Your task to perform on an android device: check data usage Image 0: 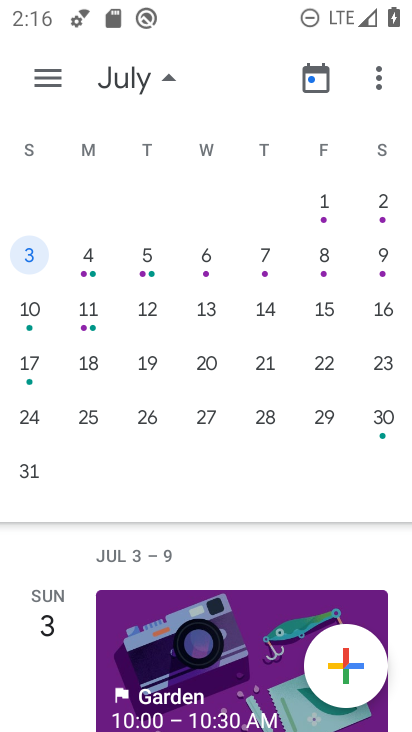
Step 0: press home button
Your task to perform on an android device: check data usage Image 1: 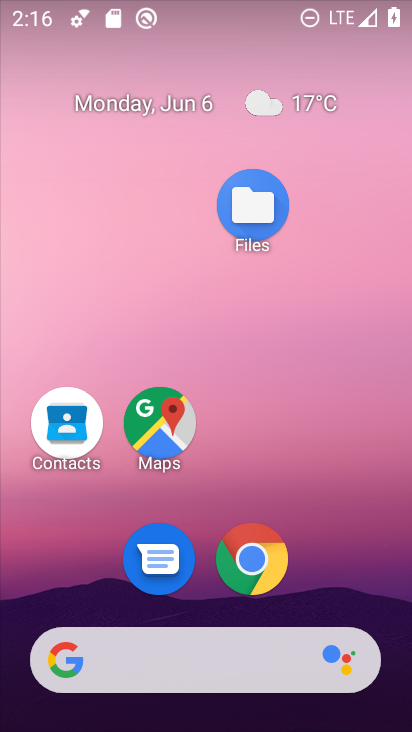
Step 1: drag from (187, 651) to (178, 159)
Your task to perform on an android device: check data usage Image 2: 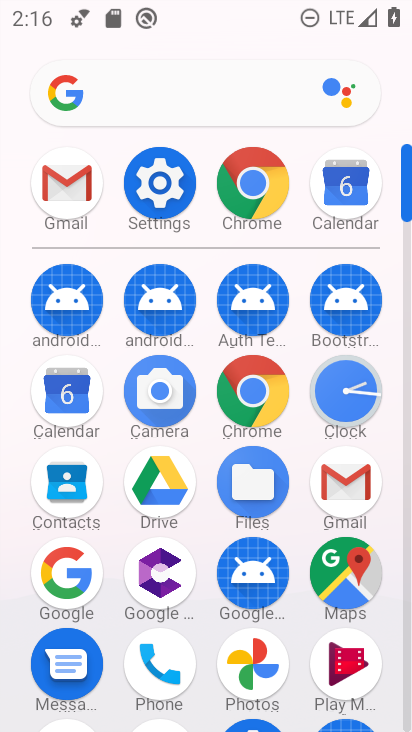
Step 2: click (176, 204)
Your task to perform on an android device: check data usage Image 3: 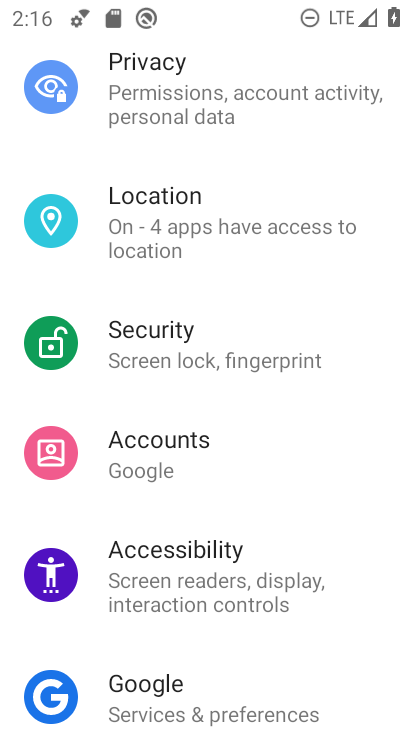
Step 3: drag from (215, 293) to (207, 585)
Your task to perform on an android device: check data usage Image 4: 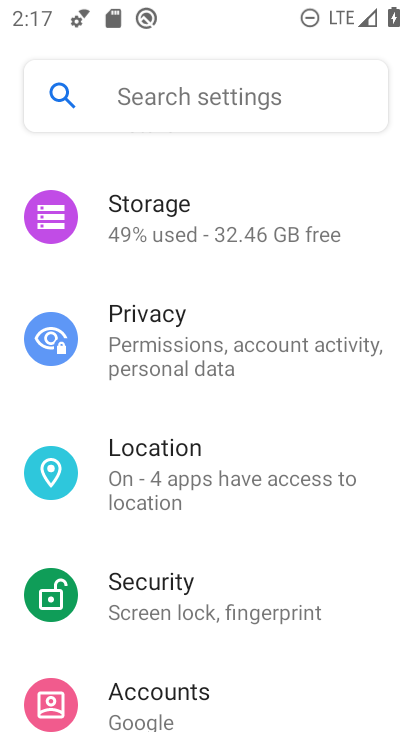
Step 4: drag from (217, 348) to (200, 607)
Your task to perform on an android device: check data usage Image 5: 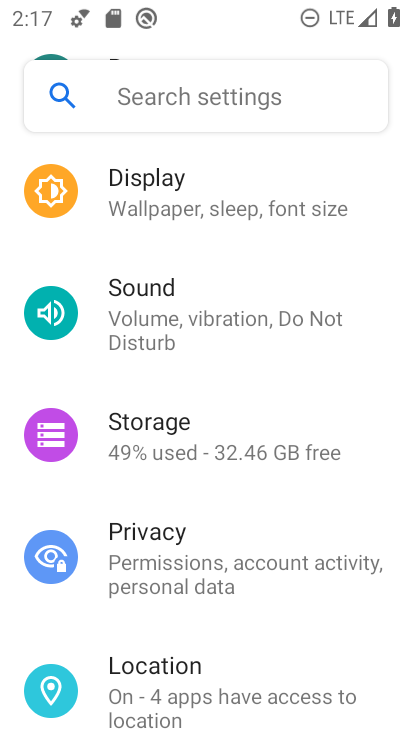
Step 5: drag from (214, 336) to (214, 659)
Your task to perform on an android device: check data usage Image 6: 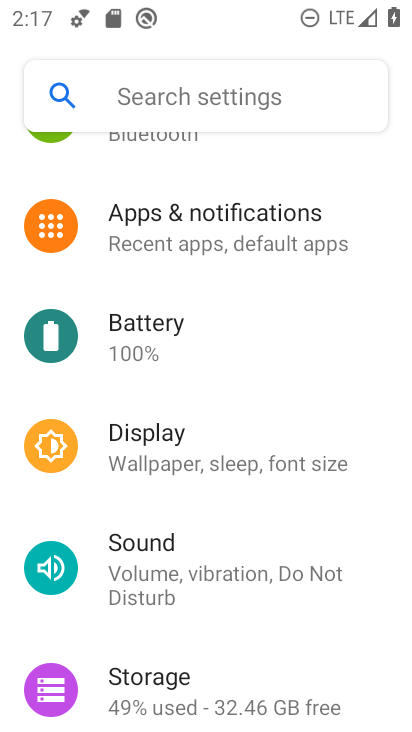
Step 6: drag from (215, 363) to (213, 678)
Your task to perform on an android device: check data usage Image 7: 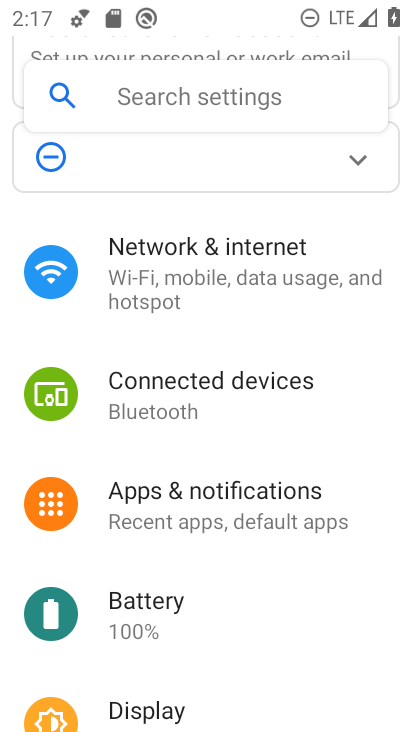
Step 7: drag from (219, 410) to (222, 653)
Your task to perform on an android device: check data usage Image 8: 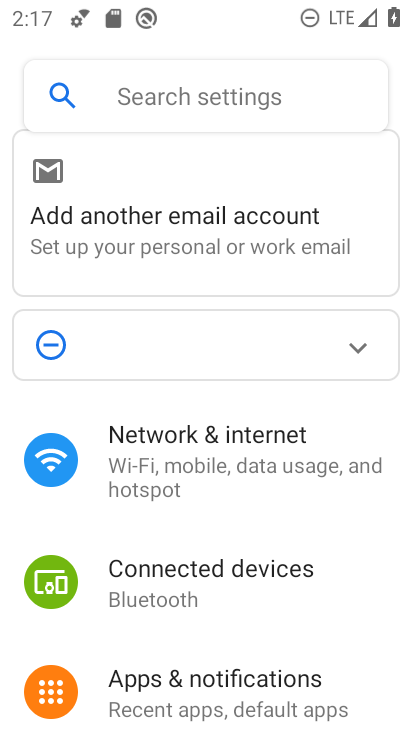
Step 8: click (226, 475)
Your task to perform on an android device: check data usage Image 9: 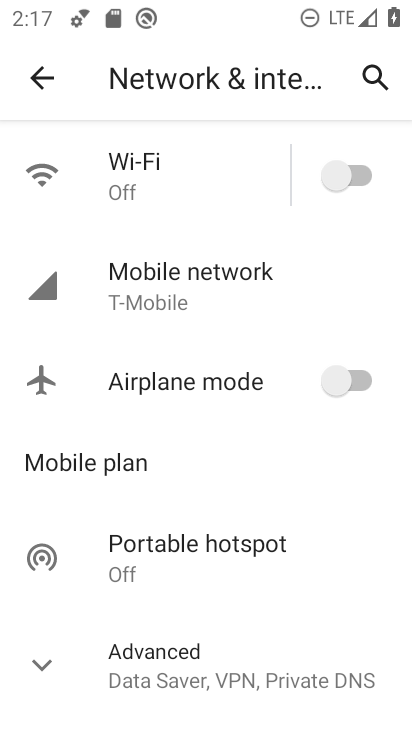
Step 9: click (207, 280)
Your task to perform on an android device: check data usage Image 10: 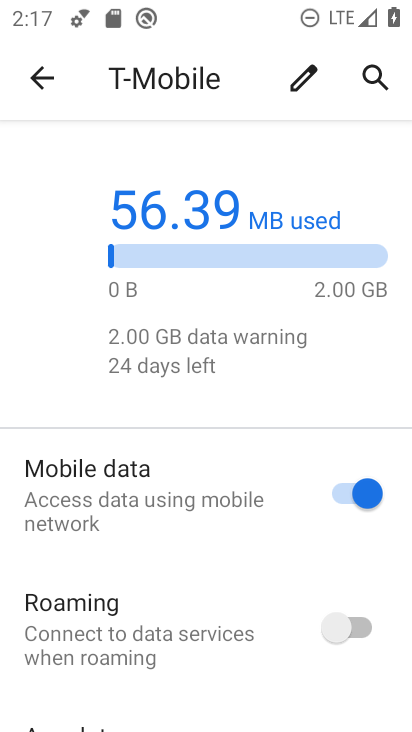
Step 10: task complete